Your task to perform on an android device: open the mobile data screen to see how much data has been used Image 0: 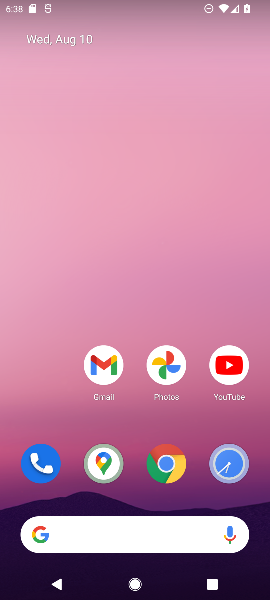
Step 0: drag from (126, 496) to (107, 3)
Your task to perform on an android device: open the mobile data screen to see how much data has been used Image 1: 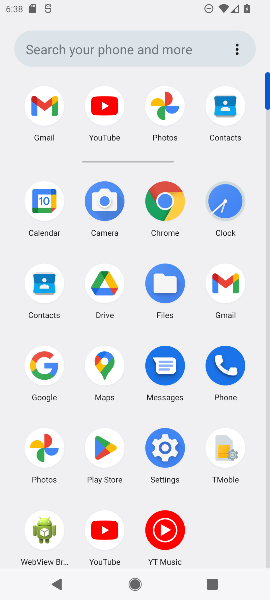
Step 1: click (166, 447)
Your task to perform on an android device: open the mobile data screen to see how much data has been used Image 2: 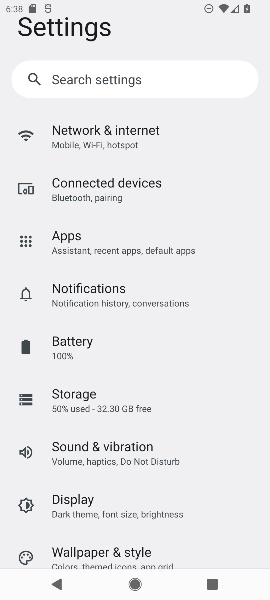
Step 2: click (98, 130)
Your task to perform on an android device: open the mobile data screen to see how much data has been used Image 3: 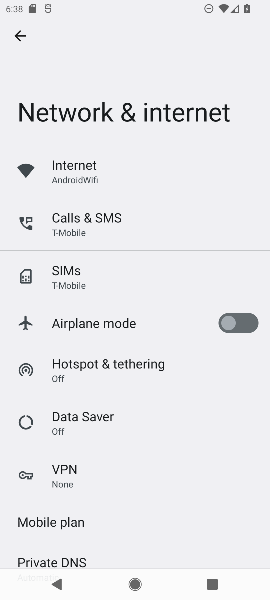
Step 3: click (66, 165)
Your task to perform on an android device: open the mobile data screen to see how much data has been used Image 4: 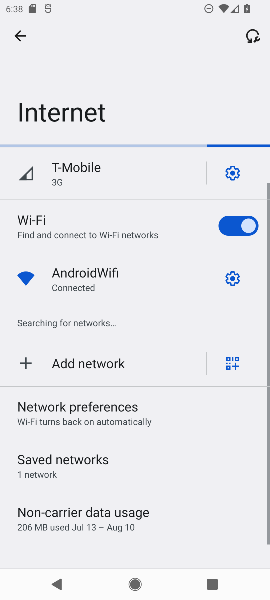
Step 4: click (82, 514)
Your task to perform on an android device: open the mobile data screen to see how much data has been used Image 5: 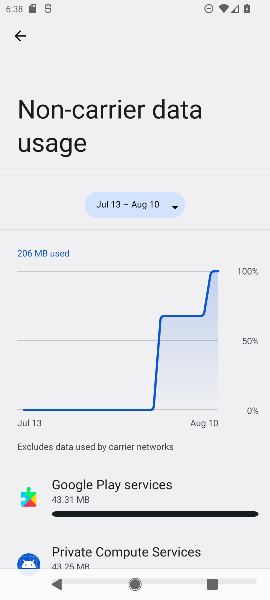
Step 5: task complete